Your task to perform on an android device: toggle improve location accuracy Image 0: 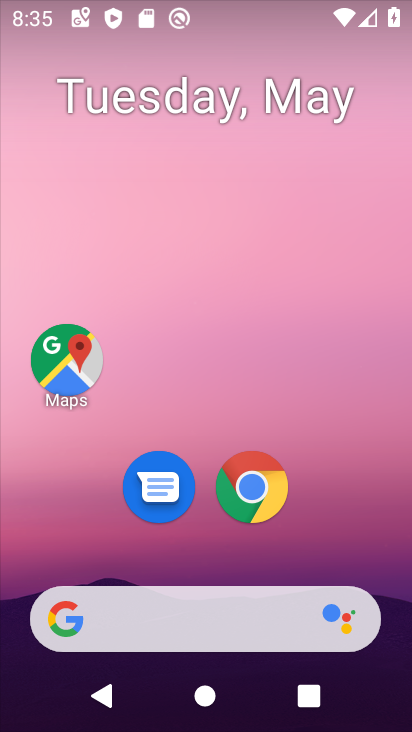
Step 0: drag from (371, 553) to (349, 145)
Your task to perform on an android device: toggle improve location accuracy Image 1: 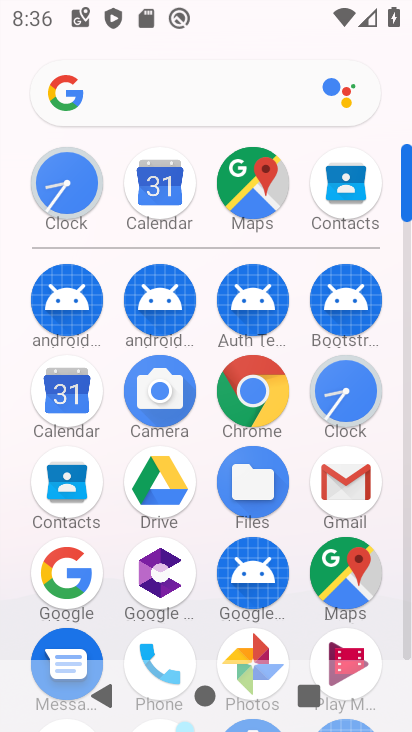
Step 1: drag from (386, 616) to (382, 348)
Your task to perform on an android device: toggle improve location accuracy Image 2: 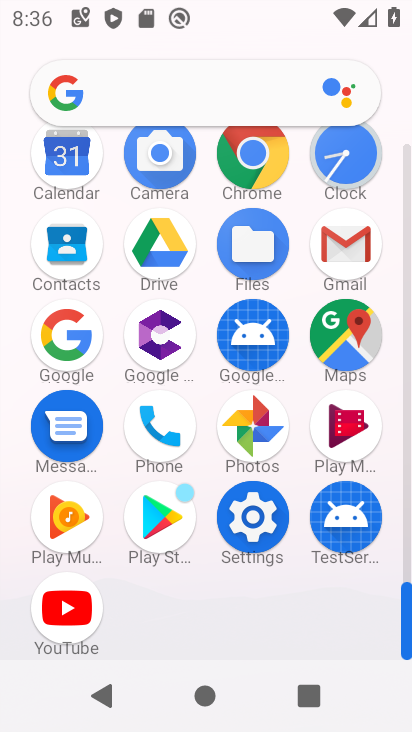
Step 2: click (255, 528)
Your task to perform on an android device: toggle improve location accuracy Image 3: 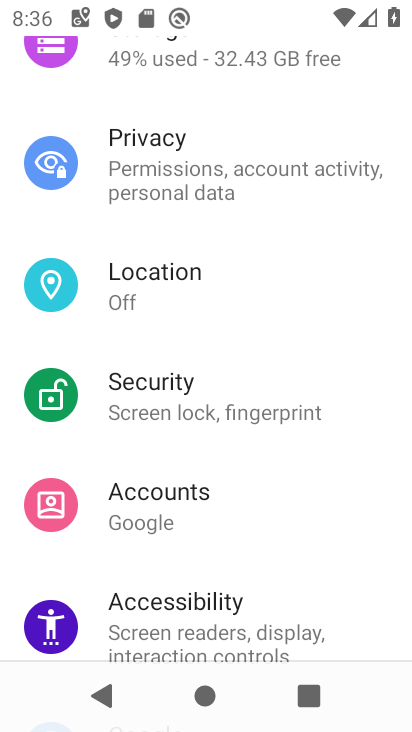
Step 3: drag from (332, 260) to (335, 366)
Your task to perform on an android device: toggle improve location accuracy Image 4: 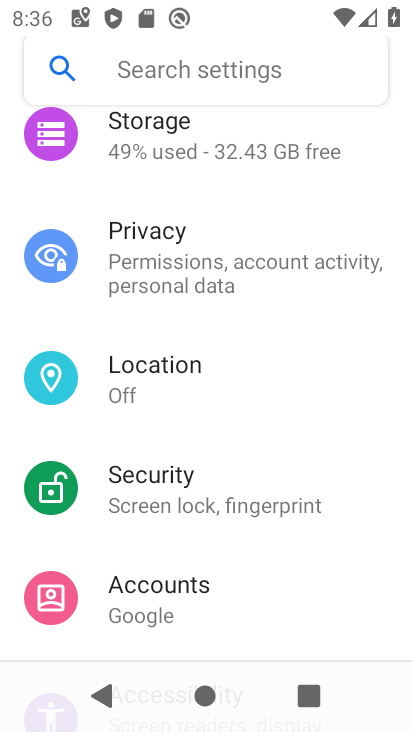
Step 4: drag from (334, 314) to (335, 418)
Your task to perform on an android device: toggle improve location accuracy Image 5: 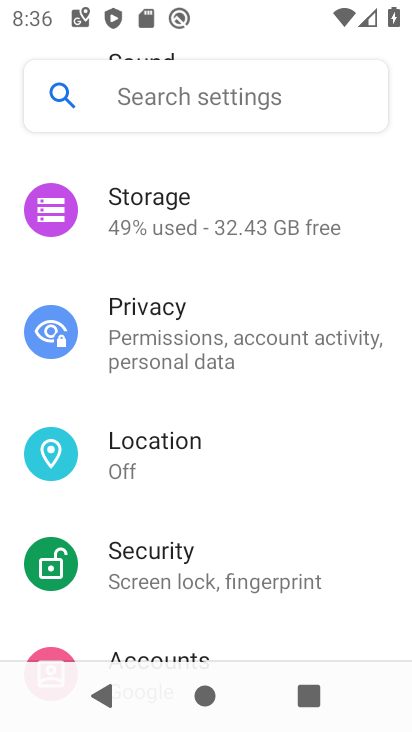
Step 5: click (164, 467)
Your task to perform on an android device: toggle improve location accuracy Image 6: 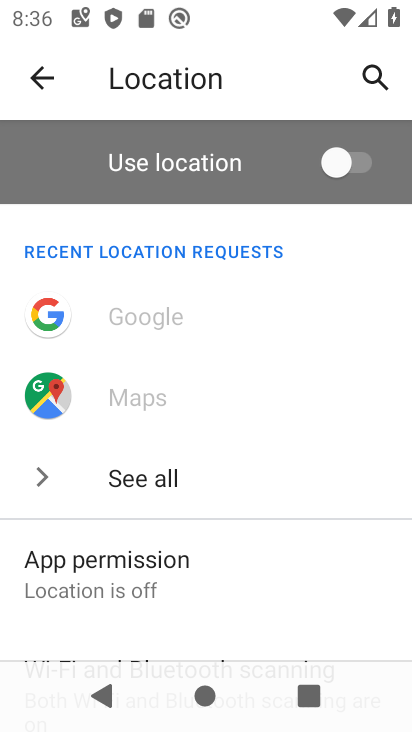
Step 6: drag from (297, 551) to (300, 446)
Your task to perform on an android device: toggle improve location accuracy Image 7: 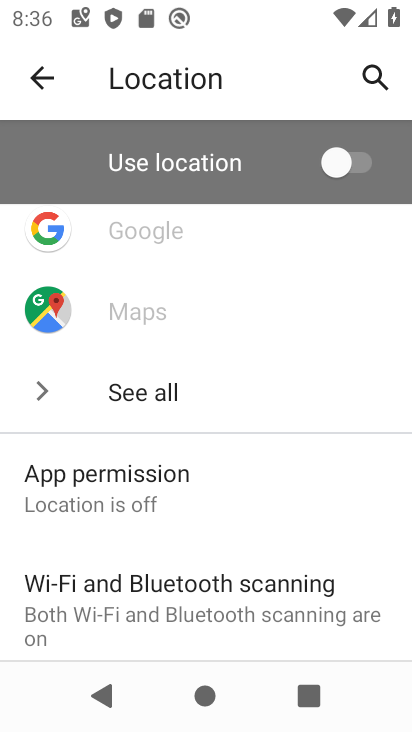
Step 7: drag from (313, 535) to (321, 410)
Your task to perform on an android device: toggle improve location accuracy Image 8: 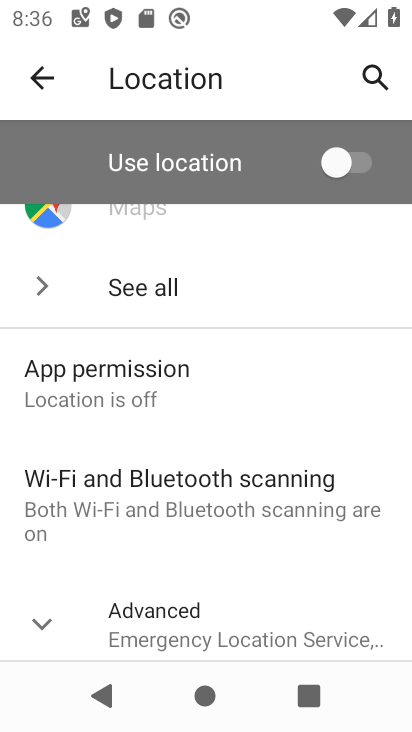
Step 8: drag from (333, 568) to (323, 412)
Your task to perform on an android device: toggle improve location accuracy Image 9: 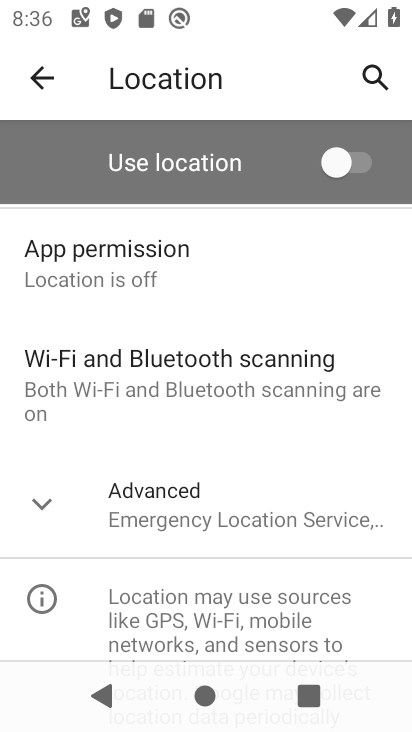
Step 9: click (257, 523)
Your task to perform on an android device: toggle improve location accuracy Image 10: 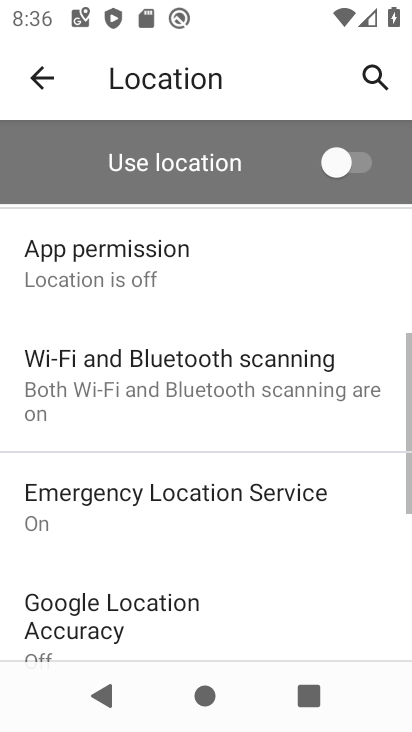
Step 10: drag from (256, 551) to (269, 410)
Your task to perform on an android device: toggle improve location accuracy Image 11: 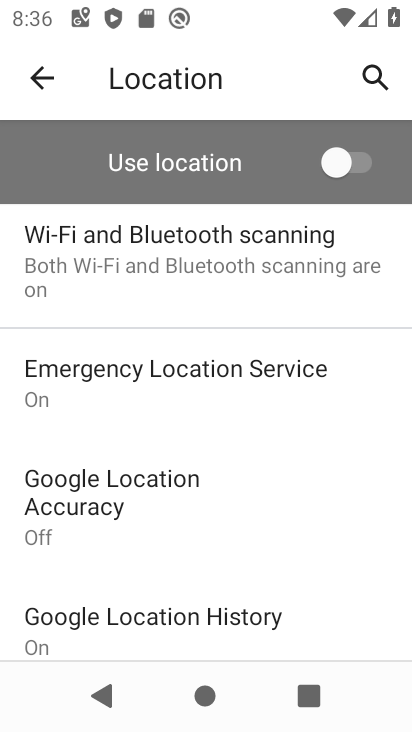
Step 11: click (187, 507)
Your task to perform on an android device: toggle improve location accuracy Image 12: 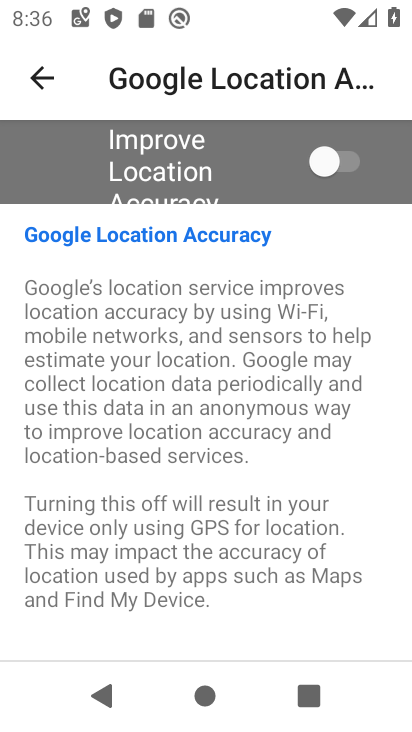
Step 12: click (329, 162)
Your task to perform on an android device: toggle improve location accuracy Image 13: 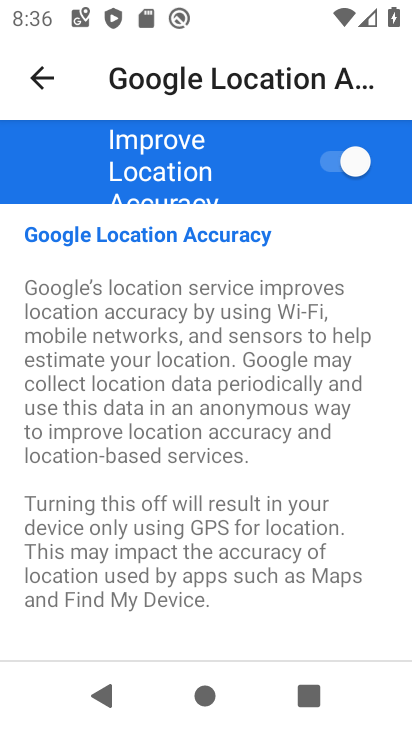
Step 13: task complete